Your task to perform on an android device: Go to Yahoo.com Image 0: 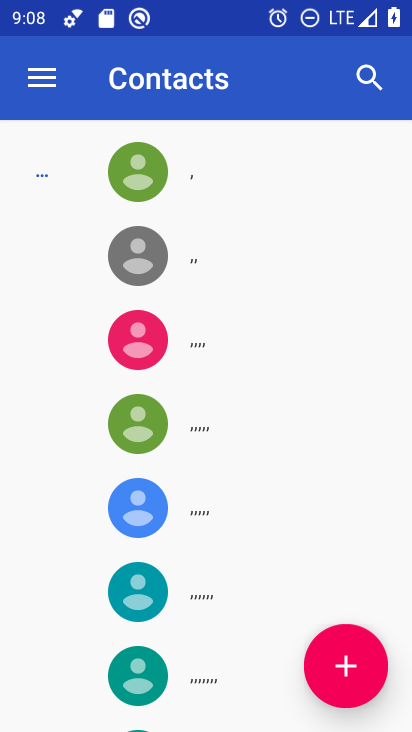
Step 0: press home button
Your task to perform on an android device: Go to Yahoo.com Image 1: 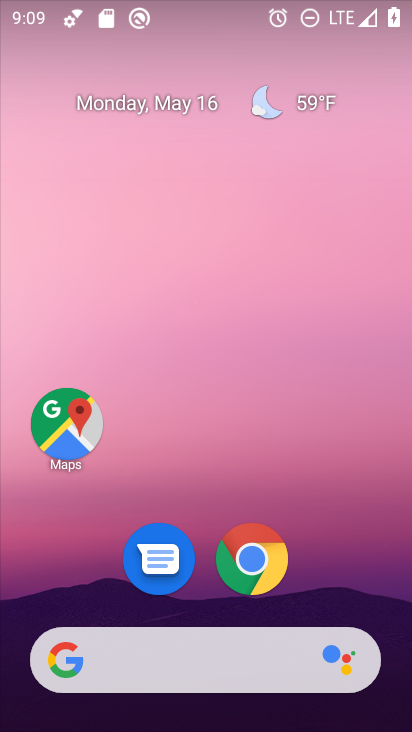
Step 1: click (263, 557)
Your task to perform on an android device: Go to Yahoo.com Image 2: 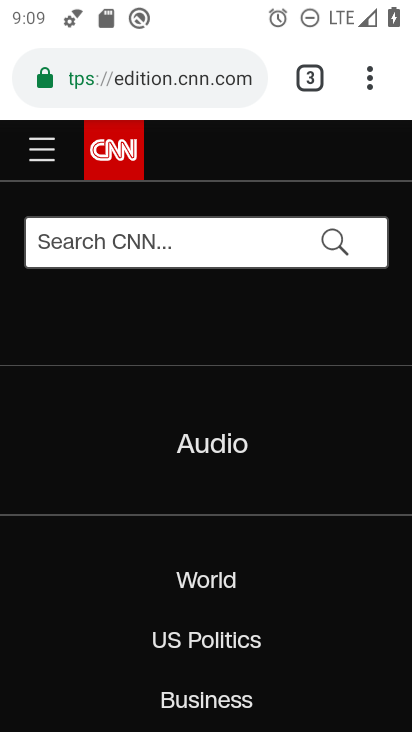
Step 2: click (215, 93)
Your task to perform on an android device: Go to Yahoo.com Image 3: 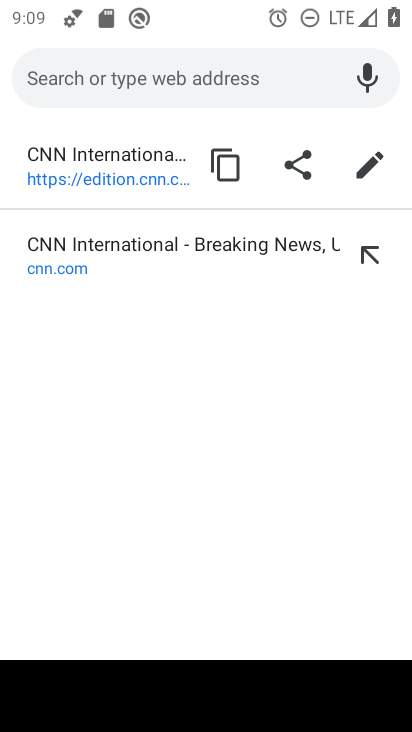
Step 3: type "yahoo.com"
Your task to perform on an android device: Go to Yahoo.com Image 4: 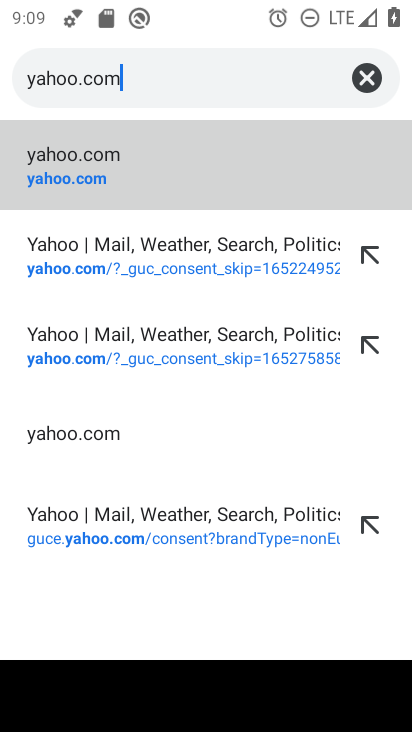
Step 4: click (110, 189)
Your task to perform on an android device: Go to Yahoo.com Image 5: 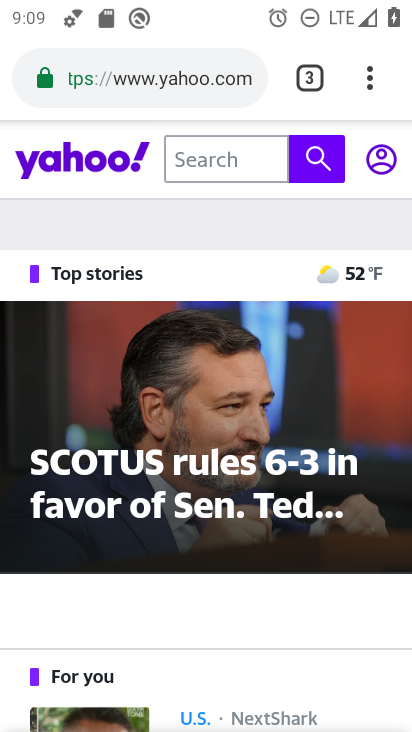
Step 5: task complete